Your task to perform on an android device: open a new tab in the chrome app Image 0: 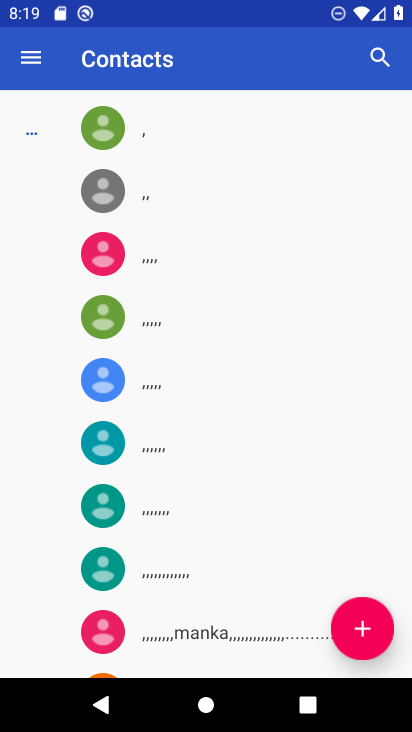
Step 0: press home button
Your task to perform on an android device: open a new tab in the chrome app Image 1: 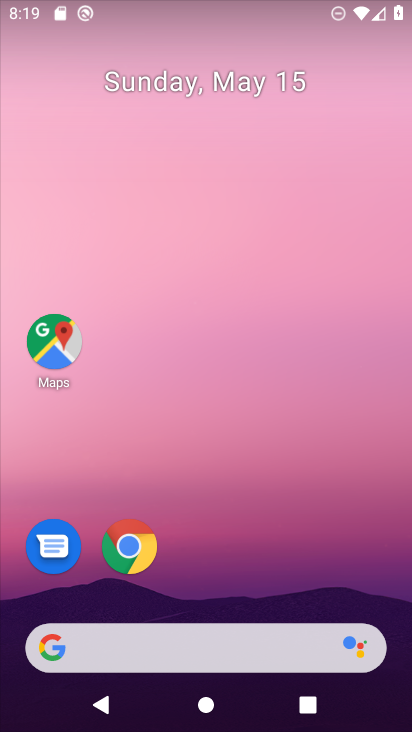
Step 1: click (135, 555)
Your task to perform on an android device: open a new tab in the chrome app Image 2: 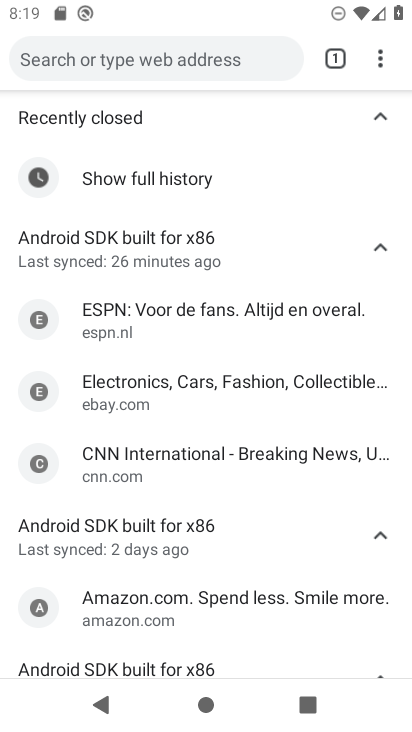
Step 2: click (381, 53)
Your task to perform on an android device: open a new tab in the chrome app Image 3: 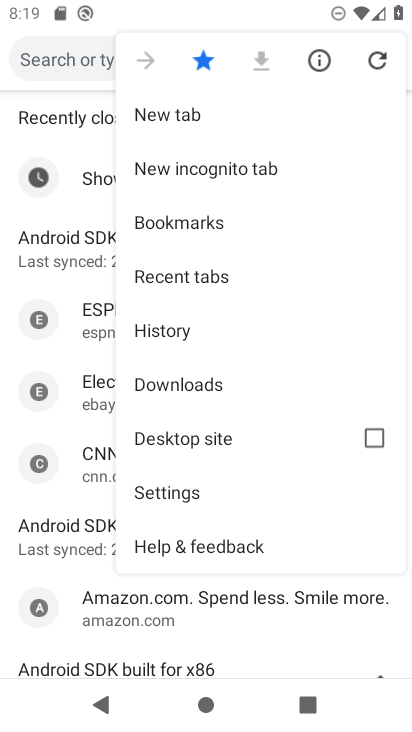
Step 3: click (284, 107)
Your task to perform on an android device: open a new tab in the chrome app Image 4: 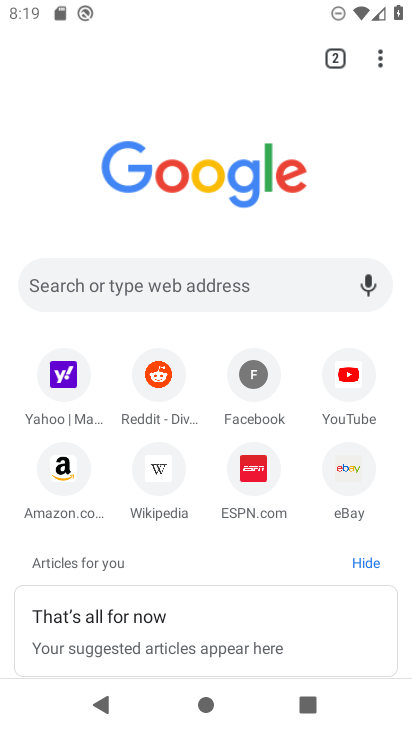
Step 4: task complete